Your task to perform on an android device: Do I have any events today? Image 0: 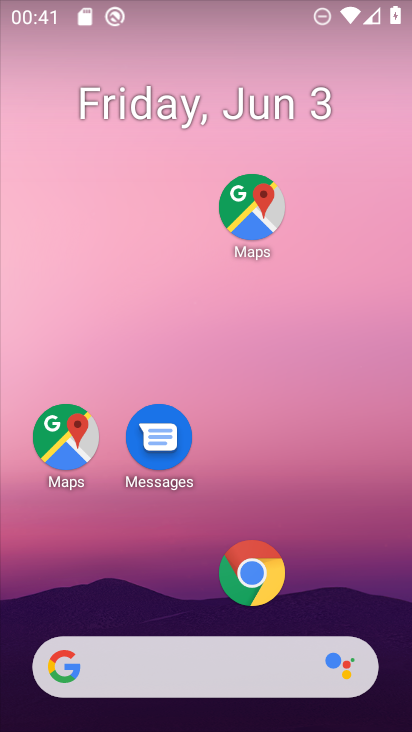
Step 0: drag from (340, 587) to (222, 82)
Your task to perform on an android device: Do I have any events today? Image 1: 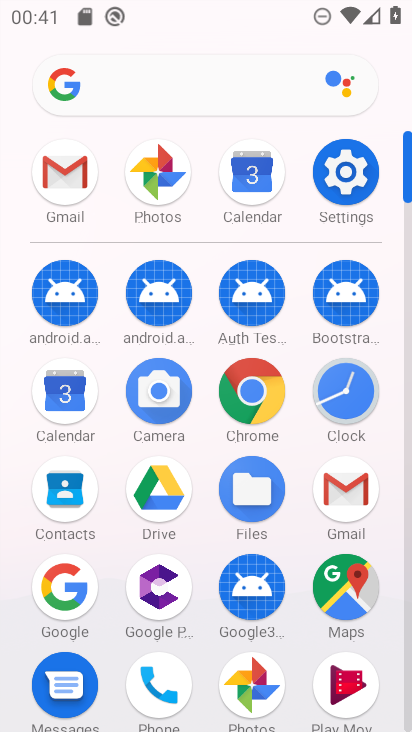
Step 1: click (255, 174)
Your task to perform on an android device: Do I have any events today? Image 2: 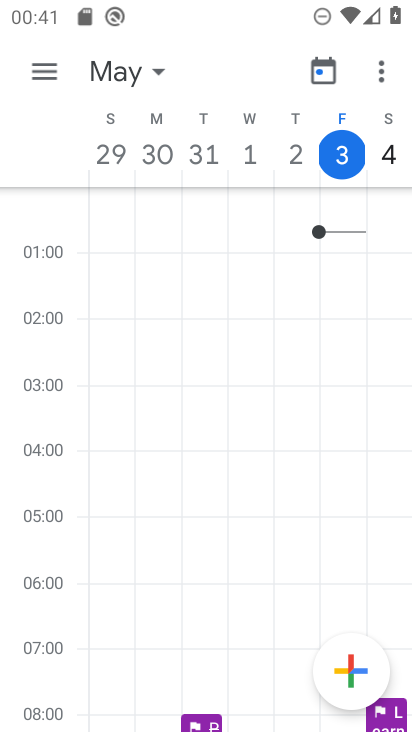
Step 2: click (254, 535)
Your task to perform on an android device: Do I have any events today? Image 3: 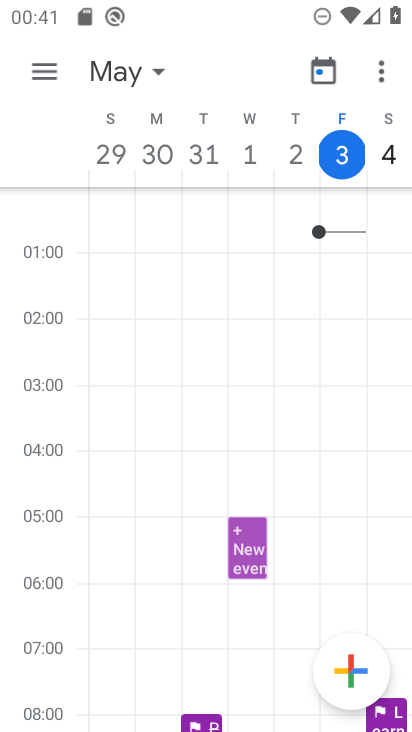
Step 3: drag from (259, 595) to (321, 90)
Your task to perform on an android device: Do I have any events today? Image 4: 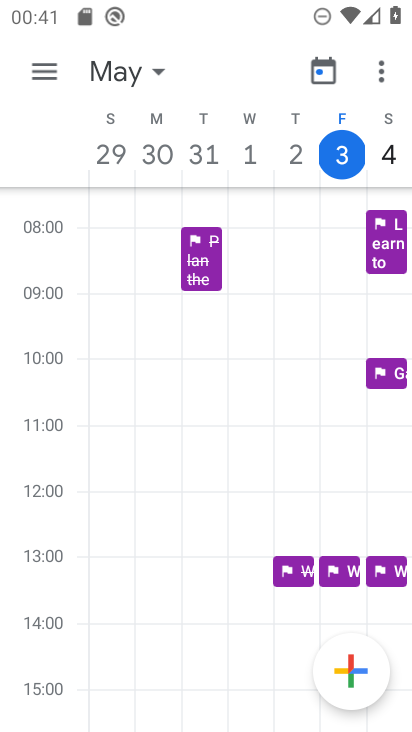
Step 4: click (38, 75)
Your task to perform on an android device: Do I have any events today? Image 5: 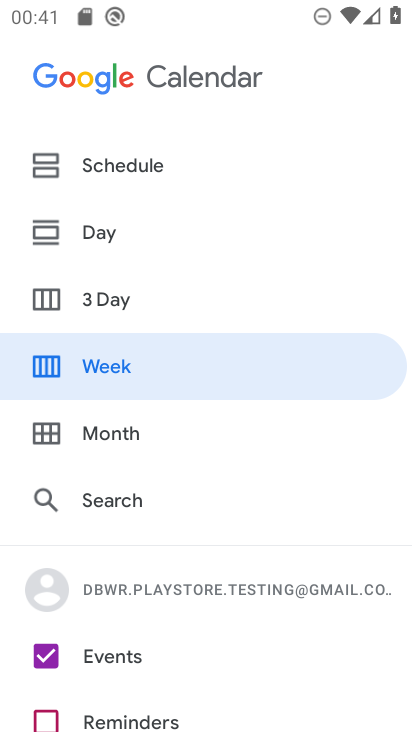
Step 5: click (92, 164)
Your task to perform on an android device: Do I have any events today? Image 6: 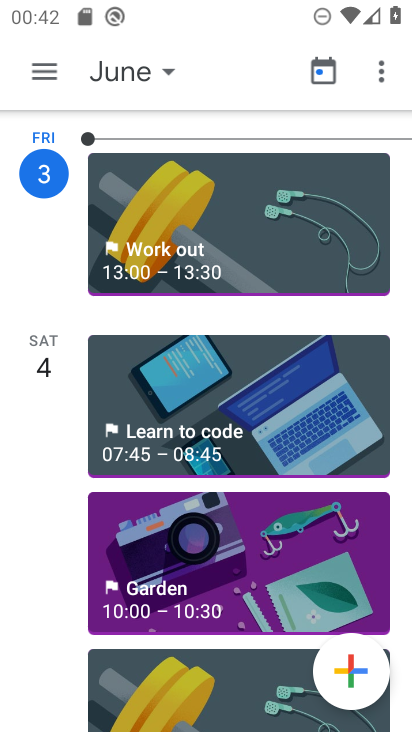
Step 6: task complete